Your task to perform on an android device: open chrome privacy settings Image 0: 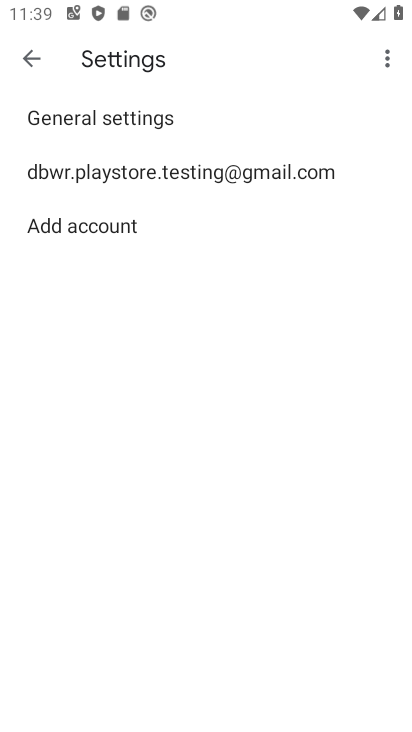
Step 0: press home button
Your task to perform on an android device: open chrome privacy settings Image 1: 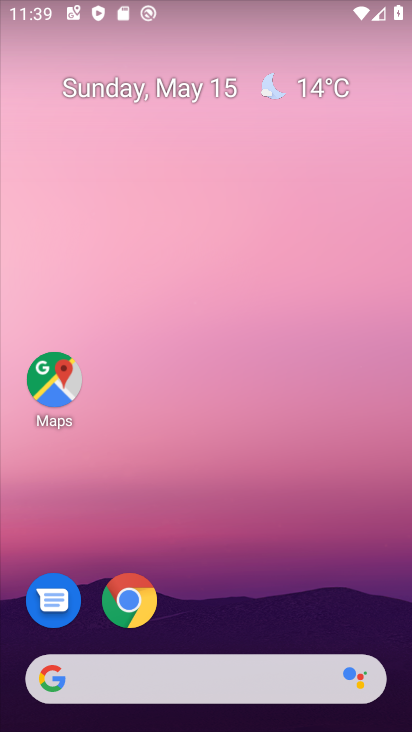
Step 1: click (126, 599)
Your task to perform on an android device: open chrome privacy settings Image 2: 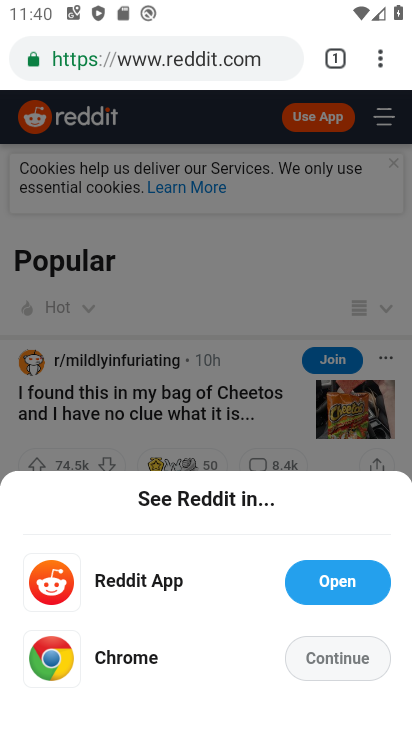
Step 2: click (384, 59)
Your task to perform on an android device: open chrome privacy settings Image 3: 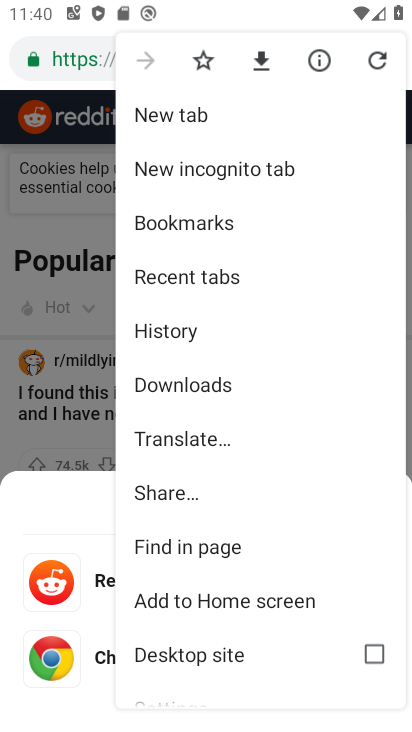
Step 3: drag from (293, 589) to (271, 246)
Your task to perform on an android device: open chrome privacy settings Image 4: 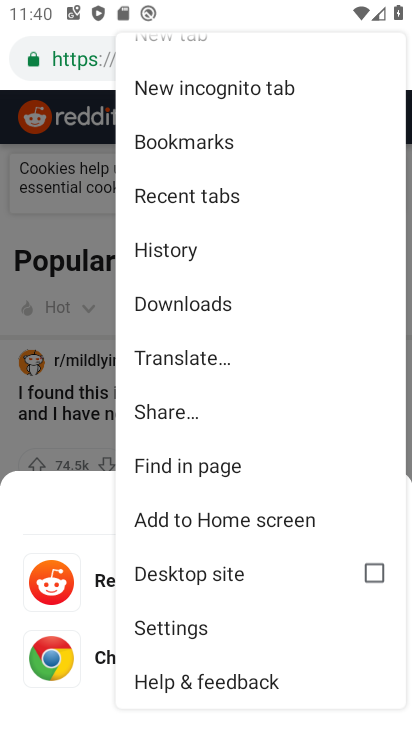
Step 4: click (192, 616)
Your task to perform on an android device: open chrome privacy settings Image 5: 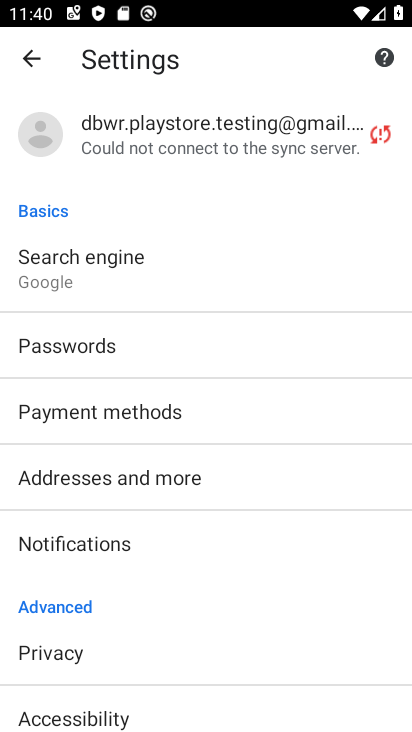
Step 5: drag from (210, 654) to (215, 216)
Your task to perform on an android device: open chrome privacy settings Image 6: 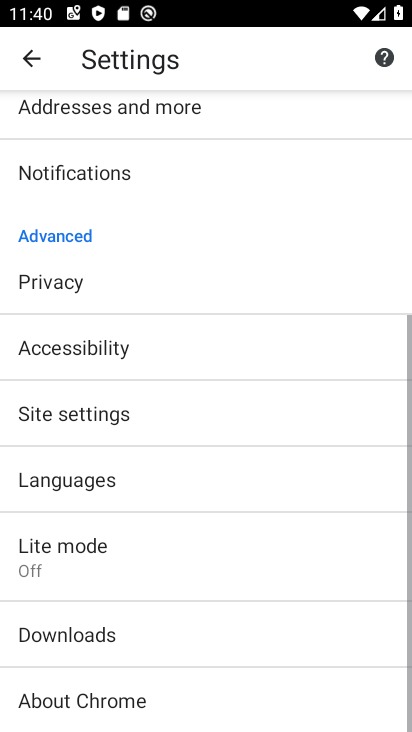
Step 6: click (54, 293)
Your task to perform on an android device: open chrome privacy settings Image 7: 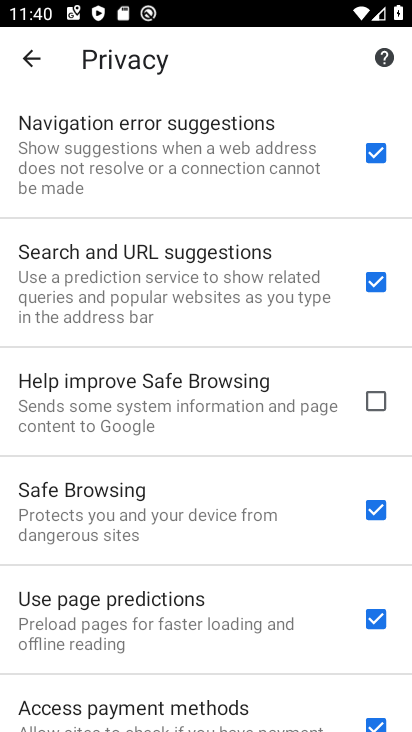
Step 7: task complete